Your task to perform on an android device: turn off location history Image 0: 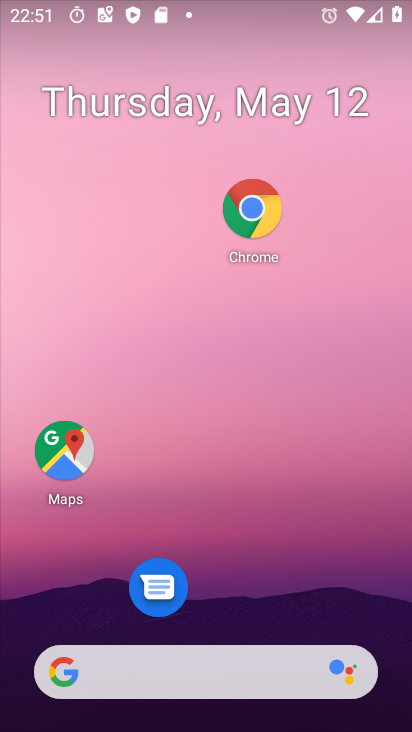
Step 0: drag from (300, 567) to (368, 273)
Your task to perform on an android device: turn off location history Image 1: 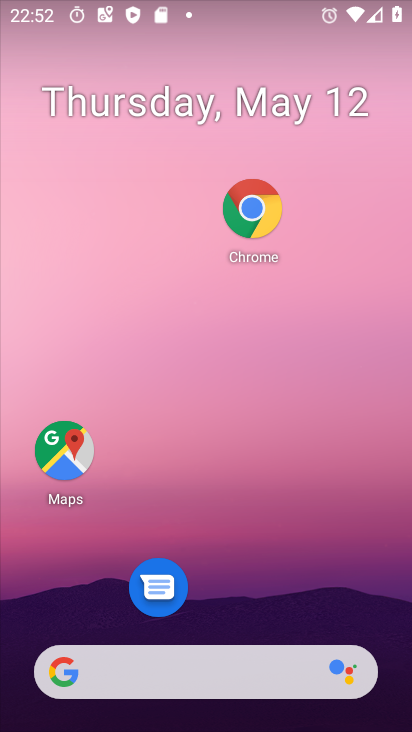
Step 1: click (356, 224)
Your task to perform on an android device: turn off location history Image 2: 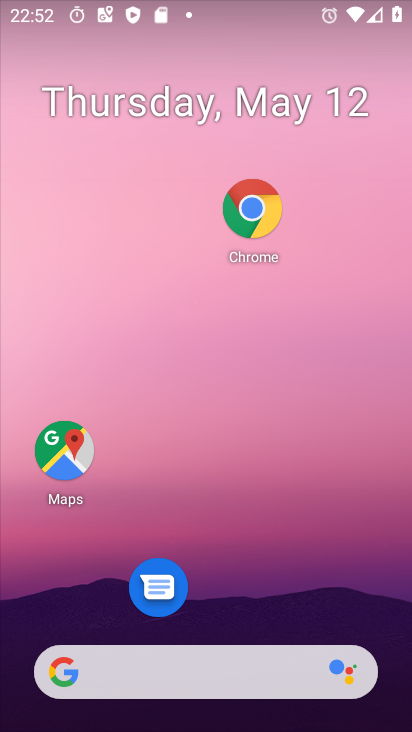
Step 2: drag from (280, 569) to (284, 261)
Your task to perform on an android device: turn off location history Image 3: 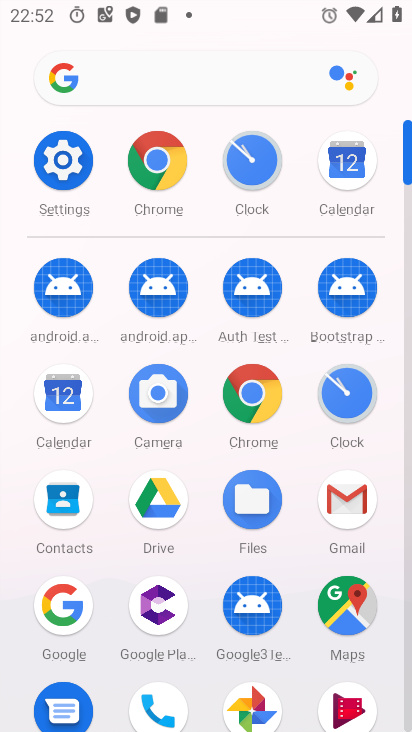
Step 3: click (61, 143)
Your task to perform on an android device: turn off location history Image 4: 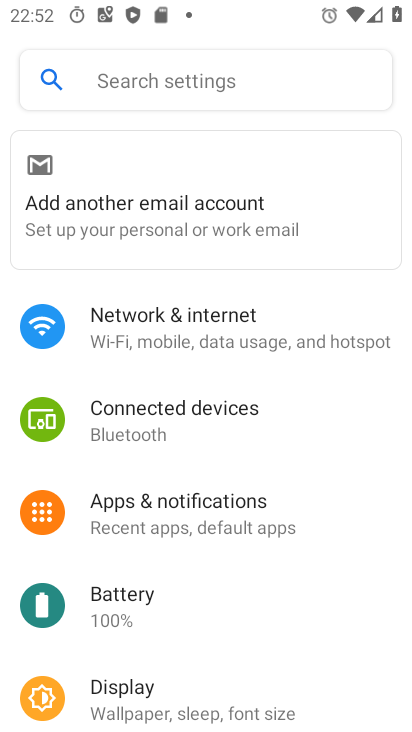
Step 4: drag from (184, 612) to (264, 321)
Your task to perform on an android device: turn off location history Image 5: 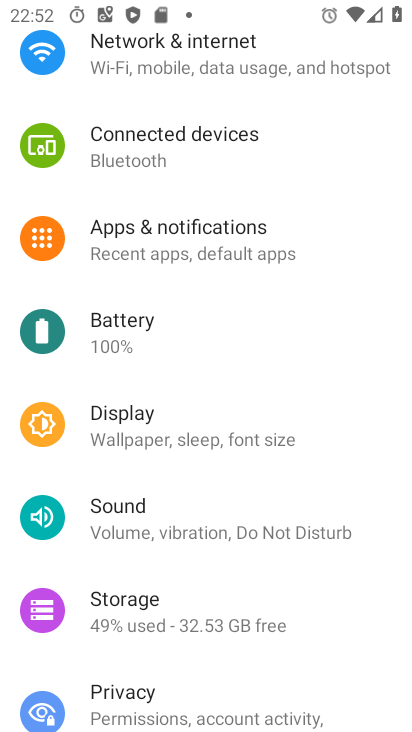
Step 5: drag from (151, 498) to (208, 227)
Your task to perform on an android device: turn off location history Image 6: 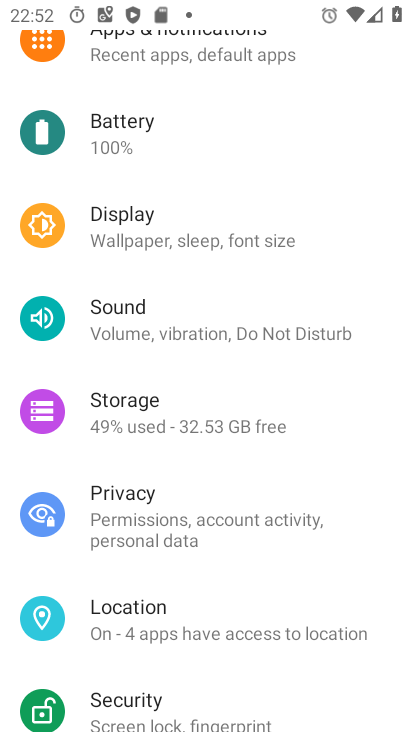
Step 6: click (135, 601)
Your task to perform on an android device: turn off location history Image 7: 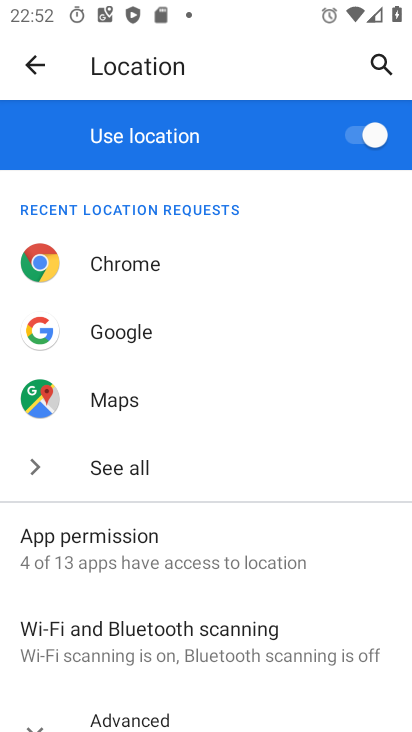
Step 7: drag from (192, 569) to (237, 305)
Your task to perform on an android device: turn off location history Image 8: 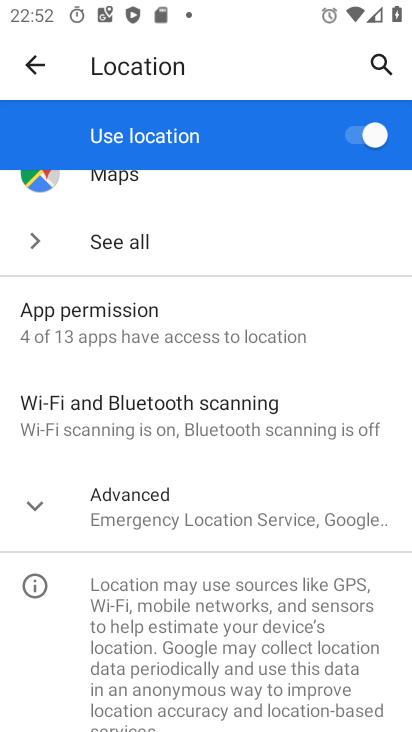
Step 8: click (168, 510)
Your task to perform on an android device: turn off location history Image 9: 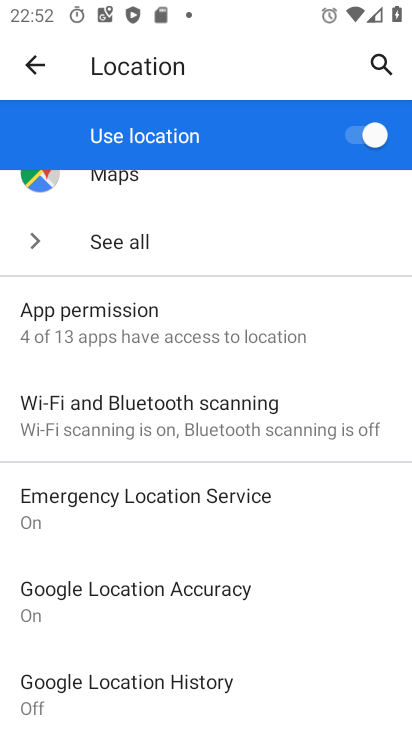
Step 9: drag from (142, 648) to (174, 527)
Your task to perform on an android device: turn off location history Image 10: 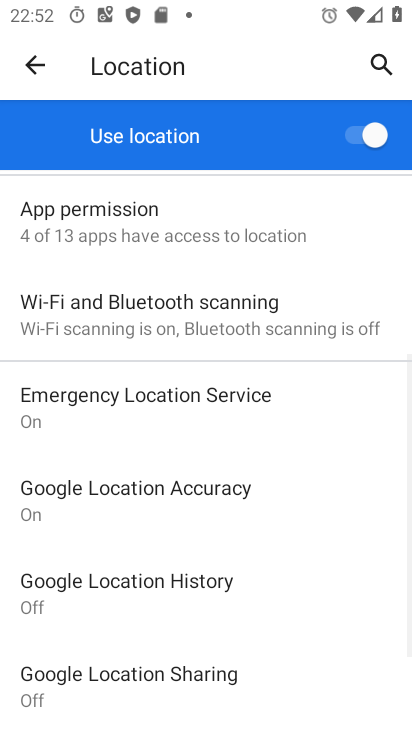
Step 10: click (119, 616)
Your task to perform on an android device: turn off location history Image 11: 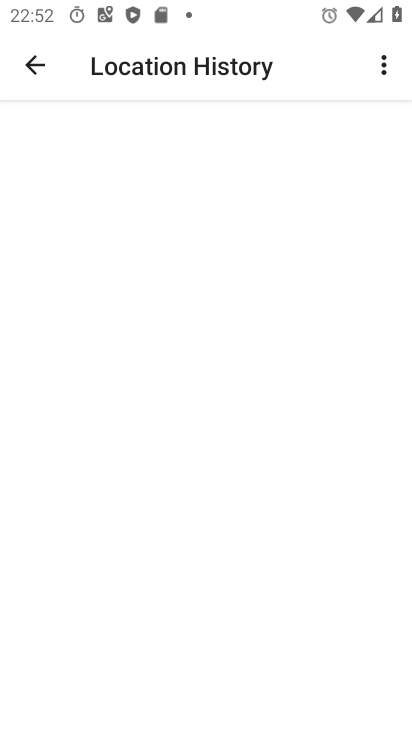
Step 11: task complete